Your task to perform on an android device: turn on showing notifications on the lock screen Image 0: 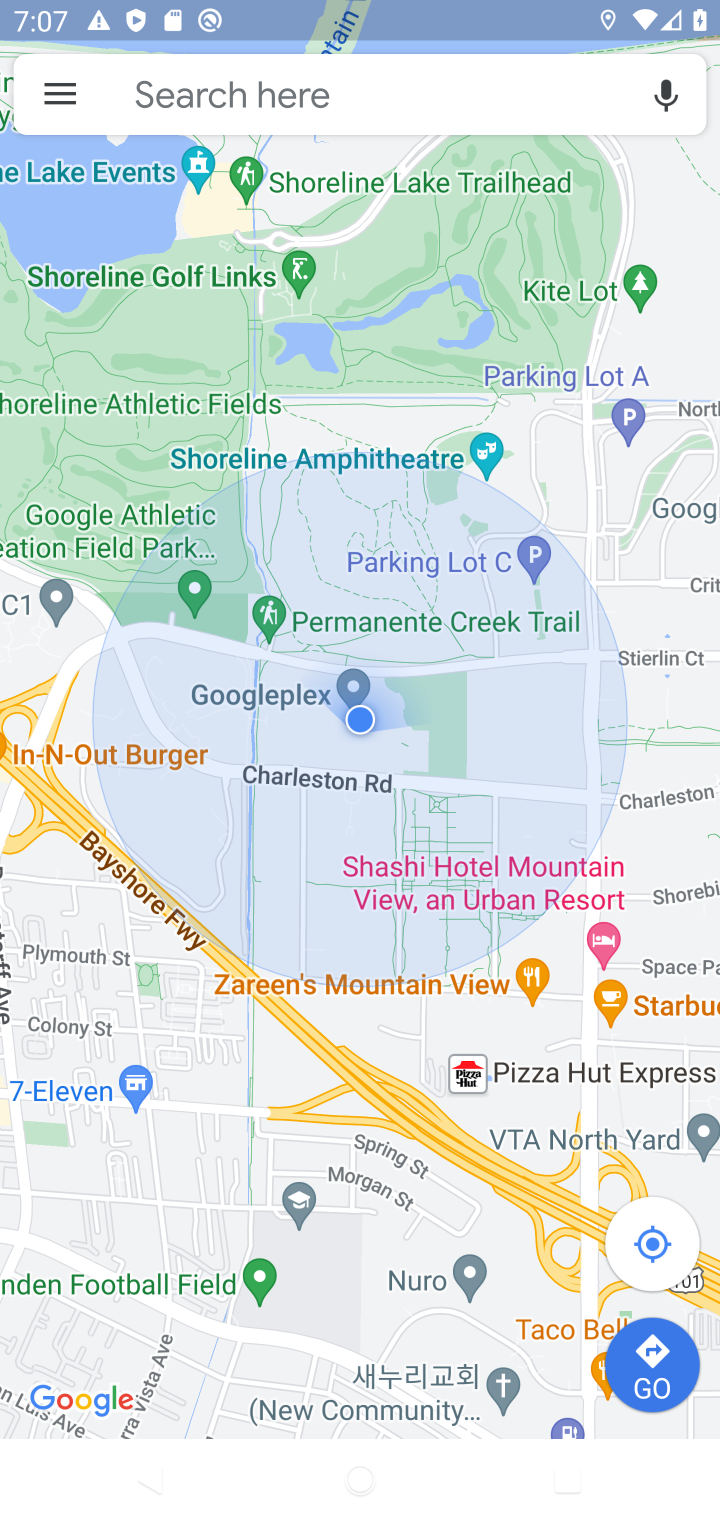
Step 0: press home button
Your task to perform on an android device: turn on showing notifications on the lock screen Image 1: 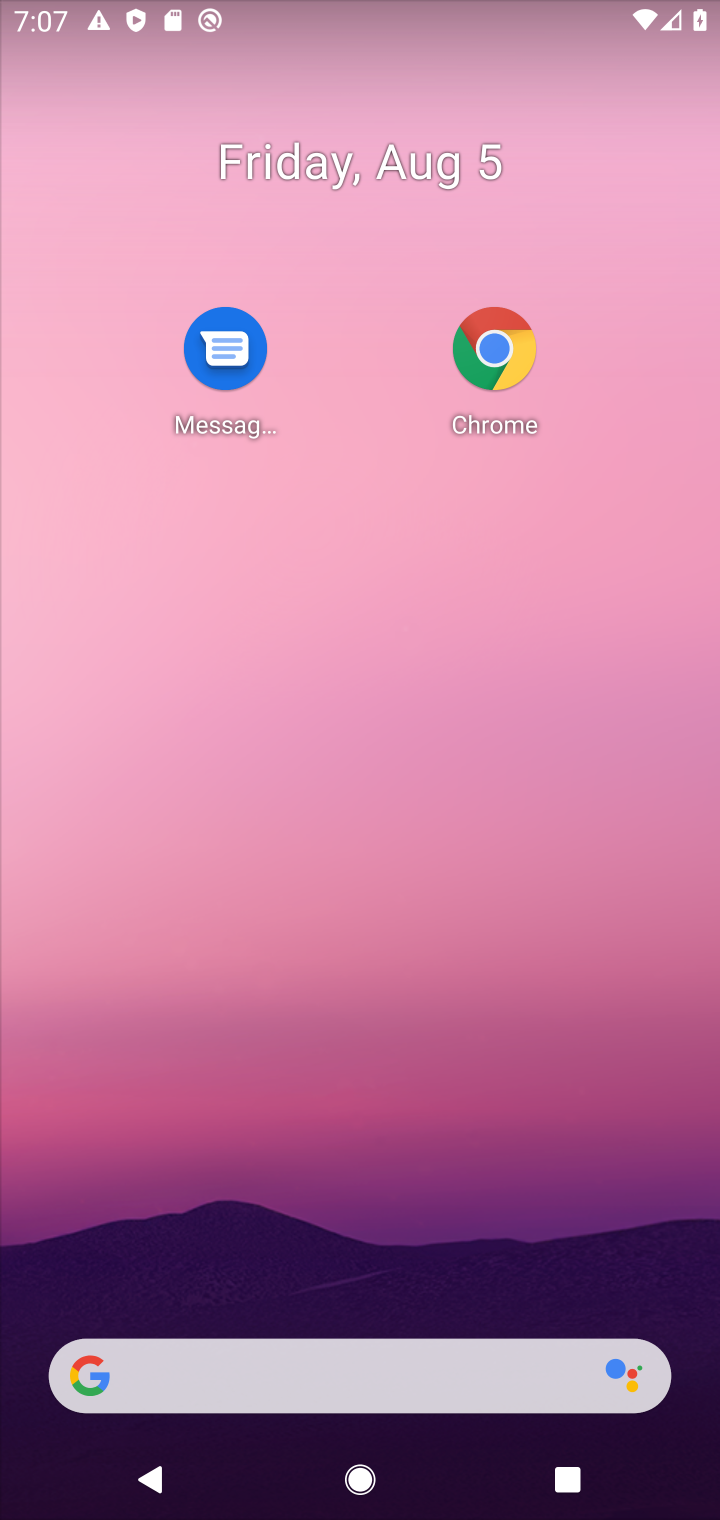
Step 1: drag from (407, 1286) to (347, 385)
Your task to perform on an android device: turn on showing notifications on the lock screen Image 2: 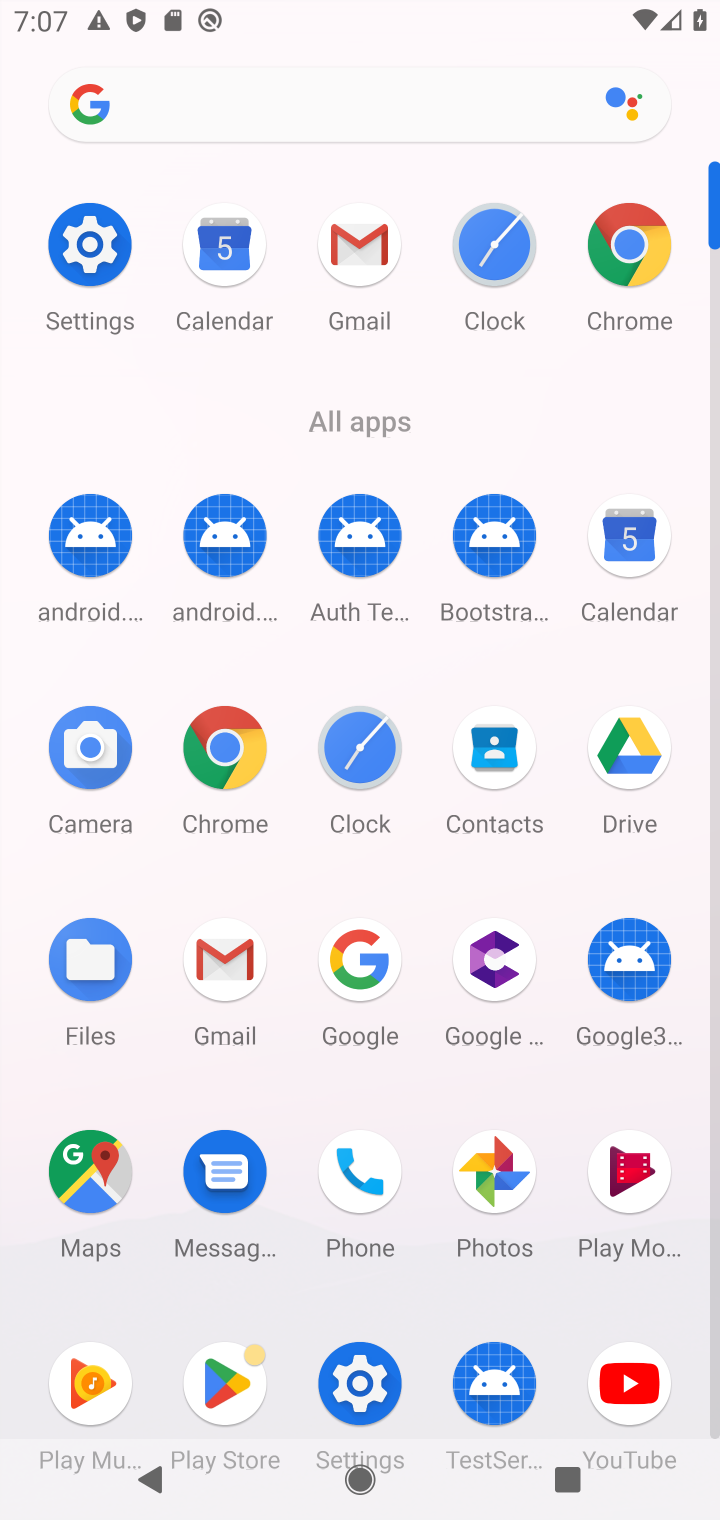
Step 2: click (70, 268)
Your task to perform on an android device: turn on showing notifications on the lock screen Image 3: 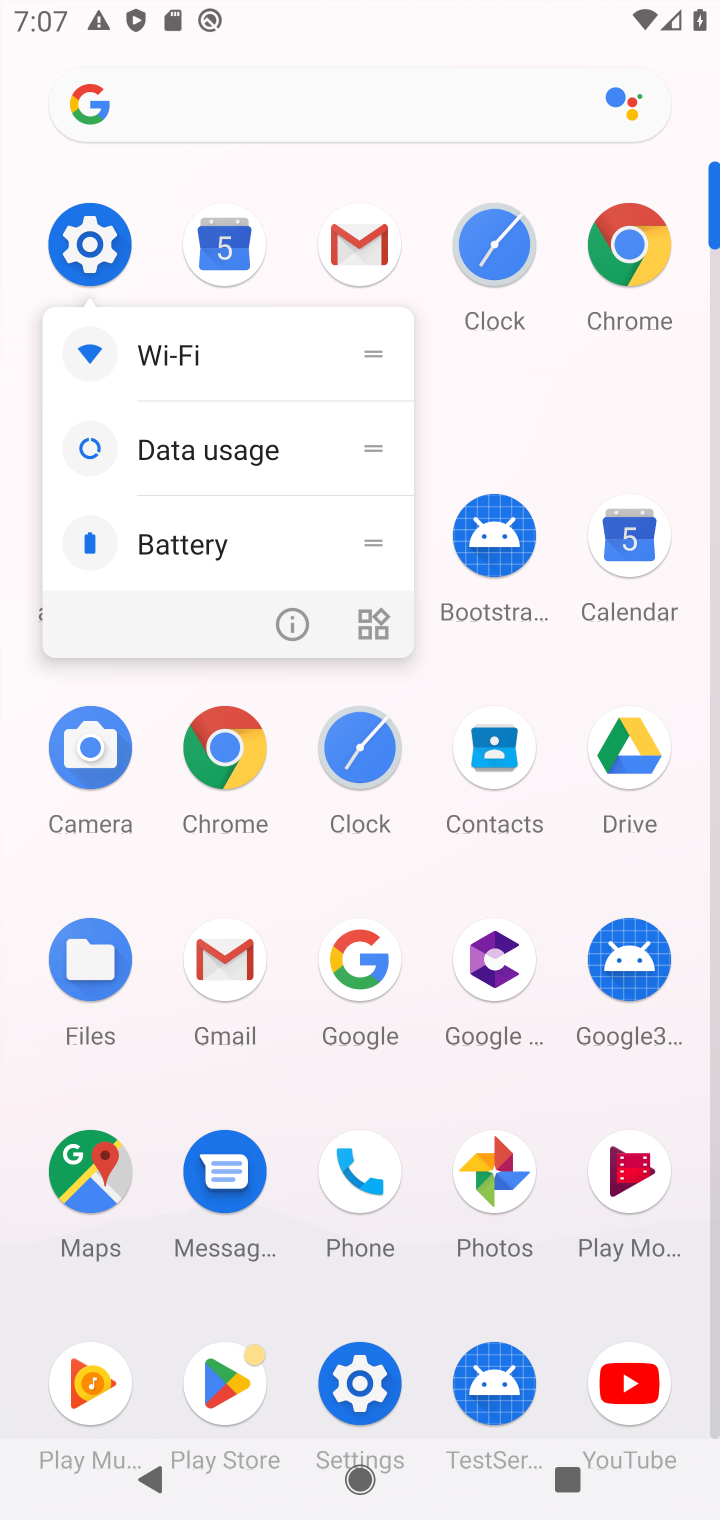
Step 3: click (90, 251)
Your task to perform on an android device: turn on showing notifications on the lock screen Image 4: 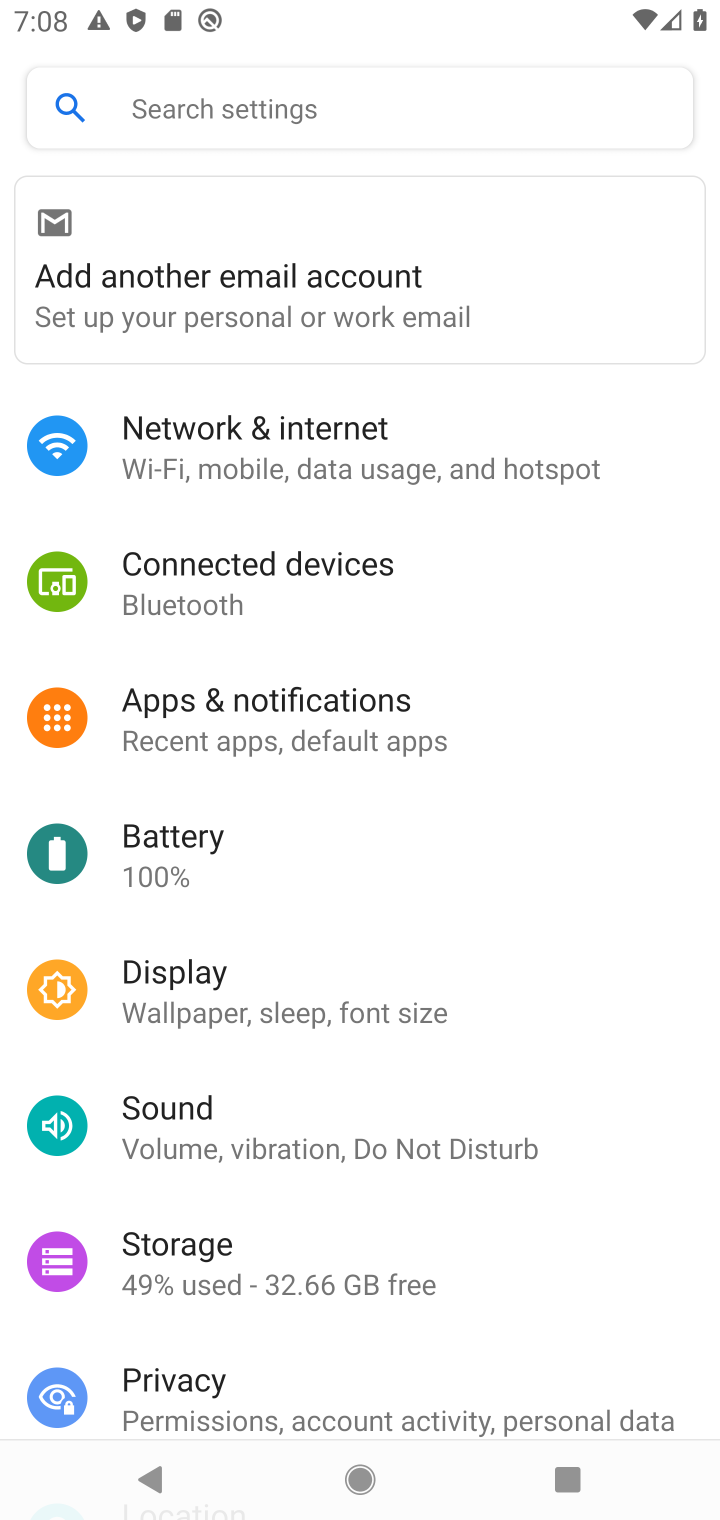
Step 4: click (244, 116)
Your task to perform on an android device: turn on showing notifications on the lock screen Image 5: 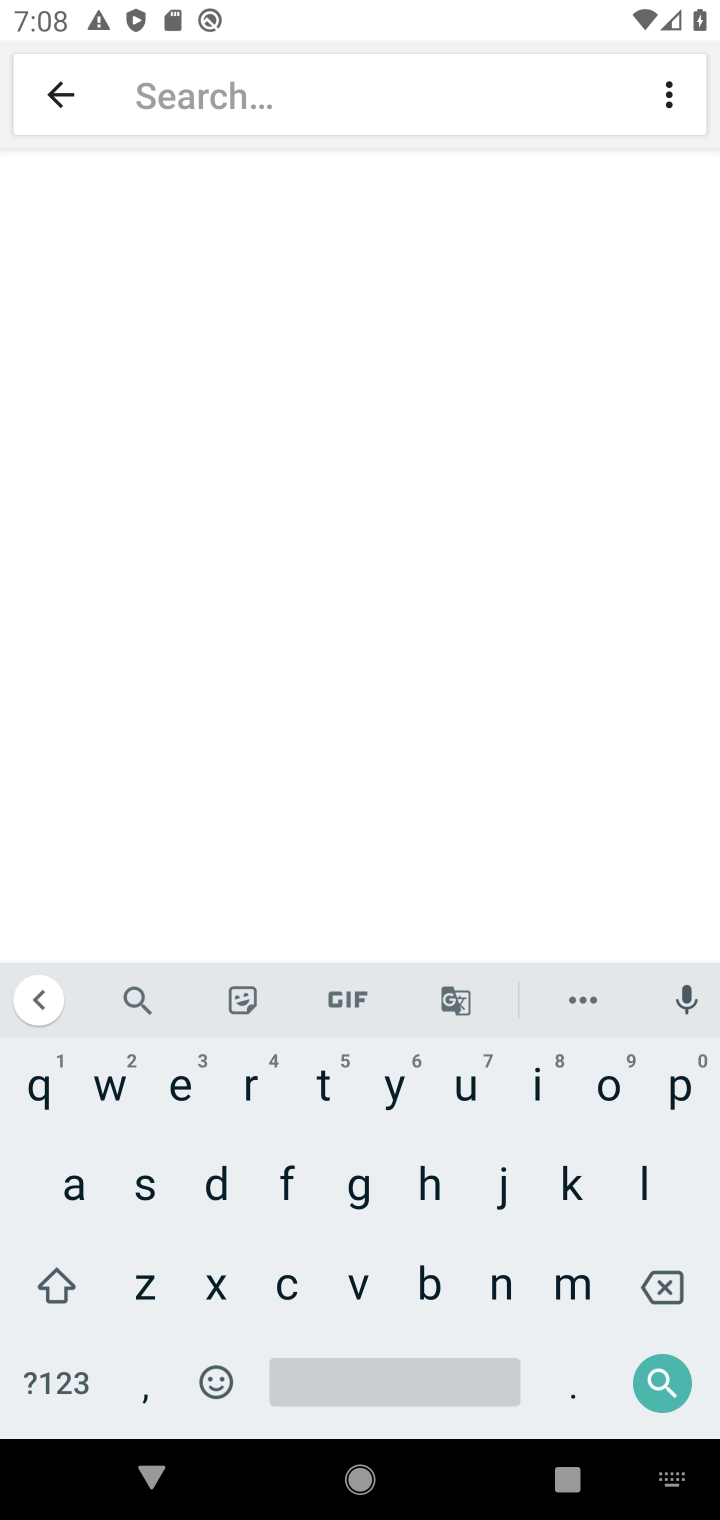
Step 5: click (500, 1291)
Your task to perform on an android device: turn on showing notifications on the lock screen Image 6: 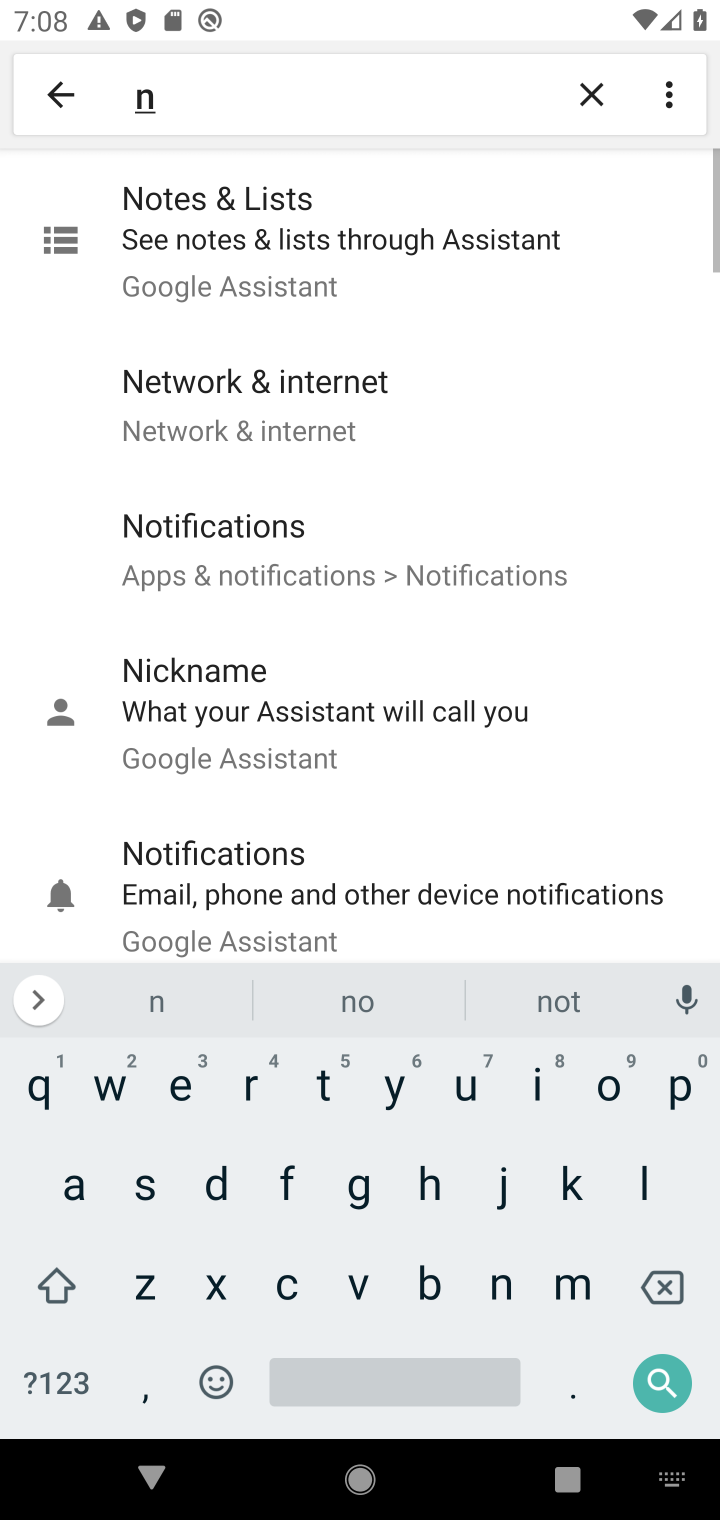
Step 6: click (603, 1073)
Your task to perform on an android device: turn on showing notifications on the lock screen Image 7: 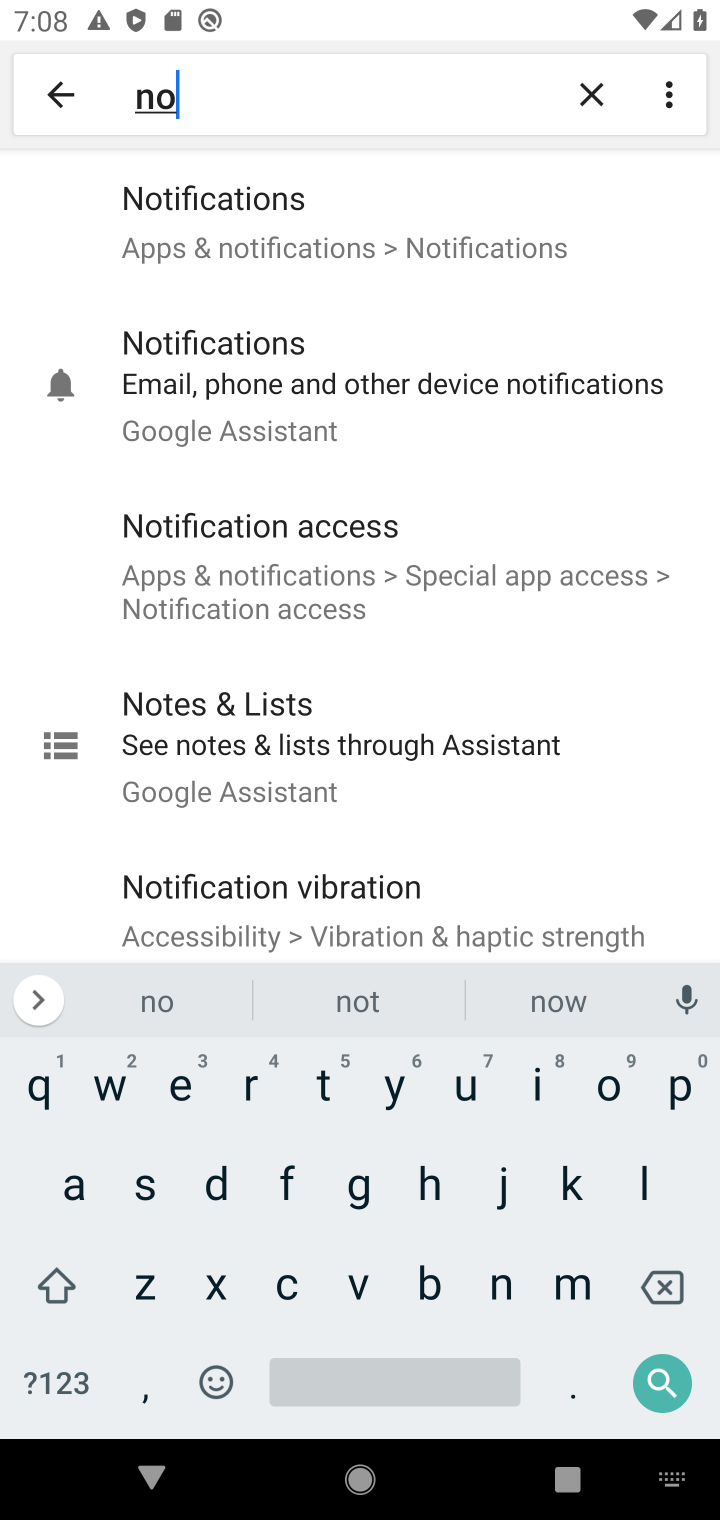
Step 7: click (285, 240)
Your task to perform on an android device: turn on showing notifications on the lock screen Image 8: 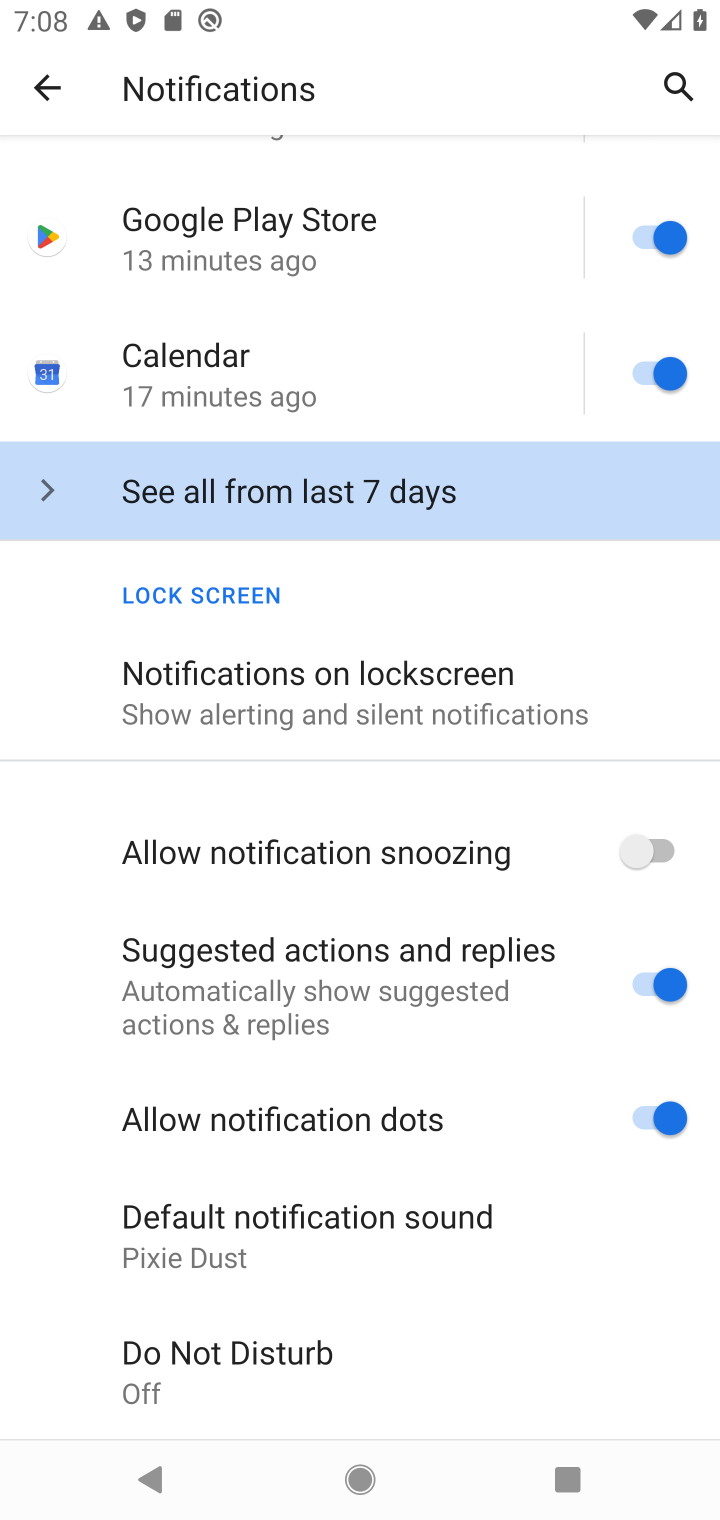
Step 8: click (278, 669)
Your task to perform on an android device: turn on showing notifications on the lock screen Image 9: 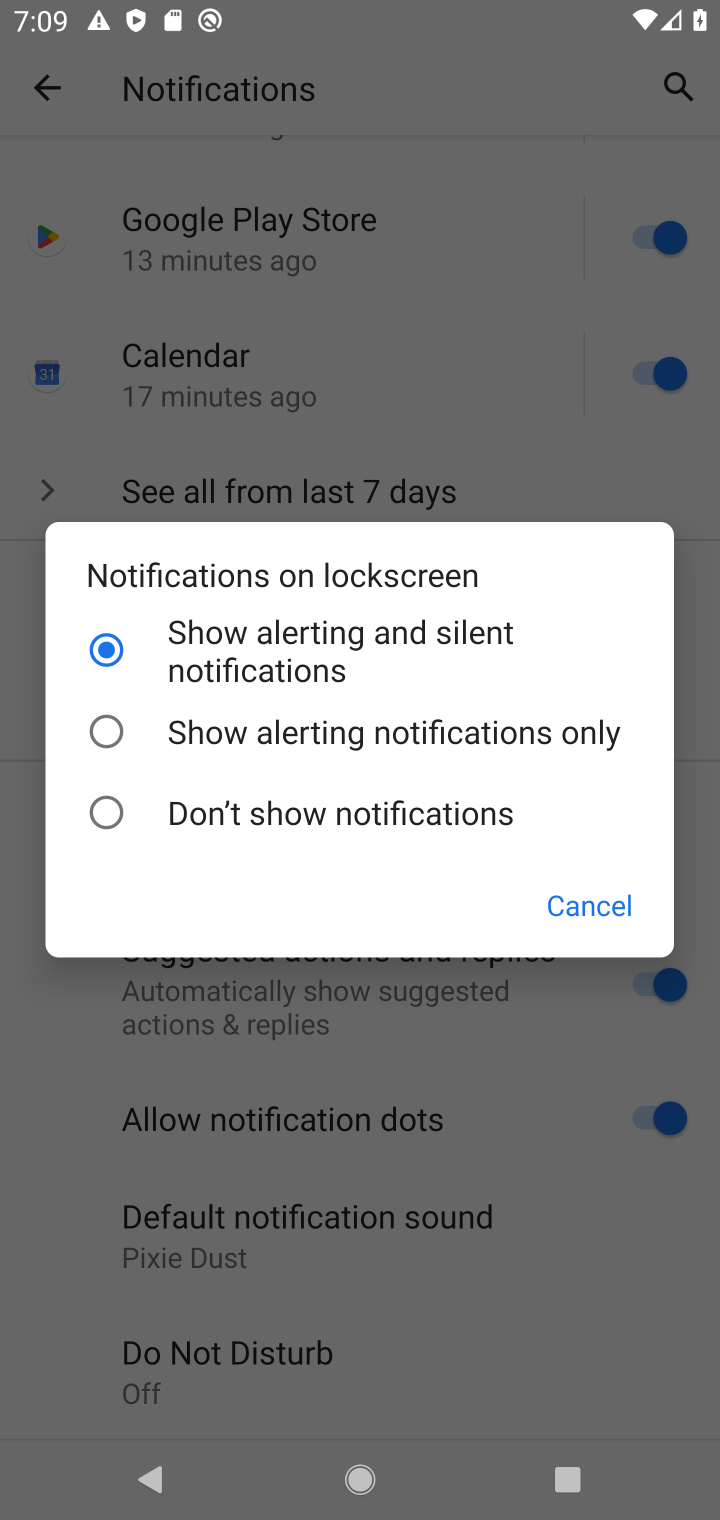
Step 9: task complete